Your task to perform on an android device: Go to Maps Image 0: 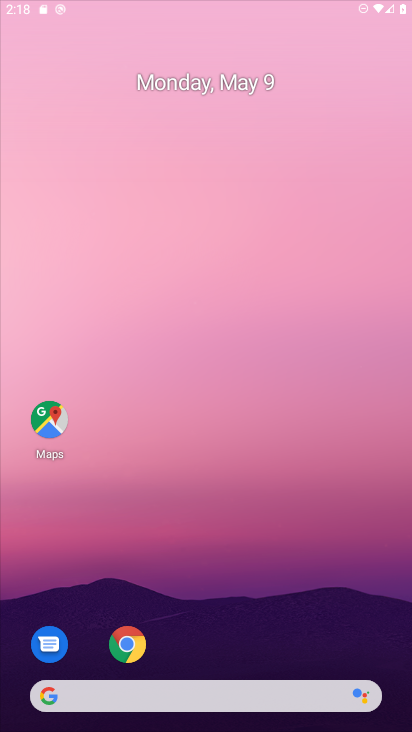
Step 0: click (208, 146)
Your task to perform on an android device: Go to Maps Image 1: 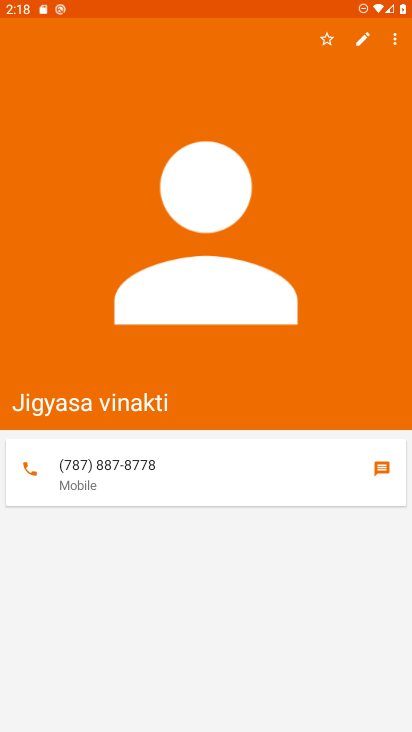
Step 1: press home button
Your task to perform on an android device: Go to Maps Image 2: 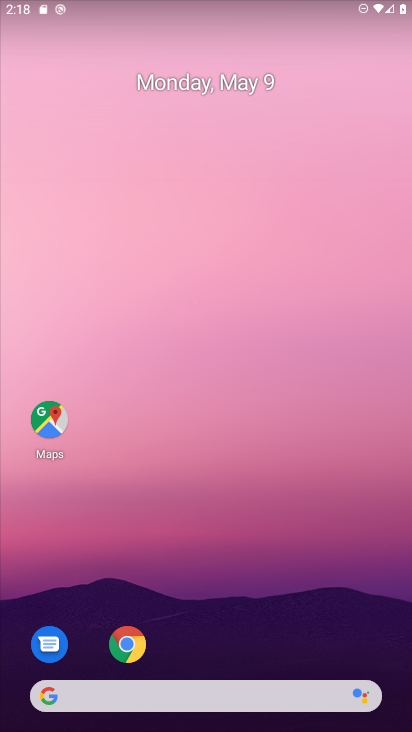
Step 2: drag from (233, 645) to (206, 113)
Your task to perform on an android device: Go to Maps Image 3: 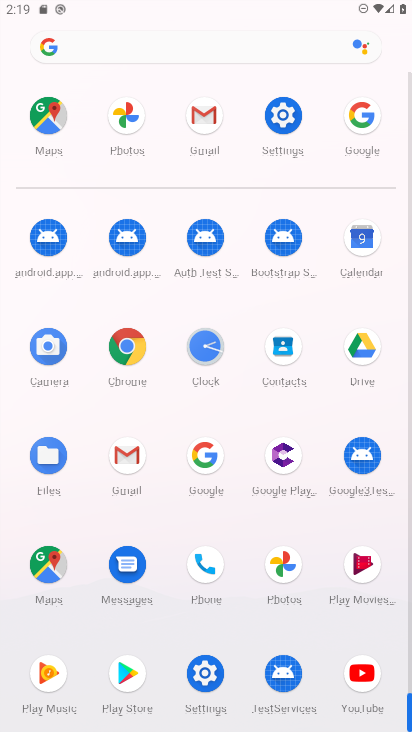
Step 3: click (40, 574)
Your task to perform on an android device: Go to Maps Image 4: 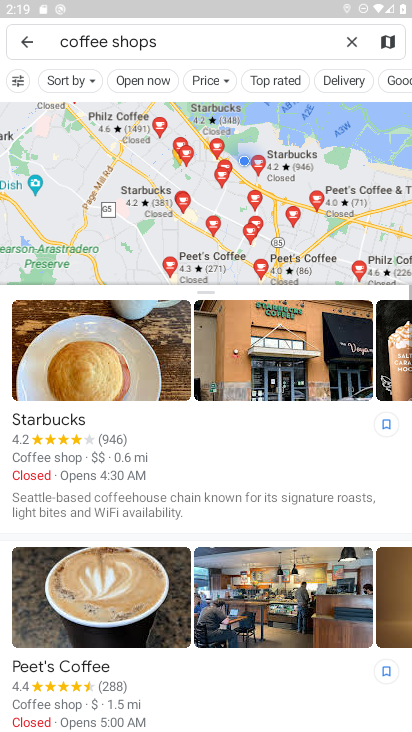
Step 4: task complete